Your task to perform on an android device: visit the assistant section in the google photos Image 0: 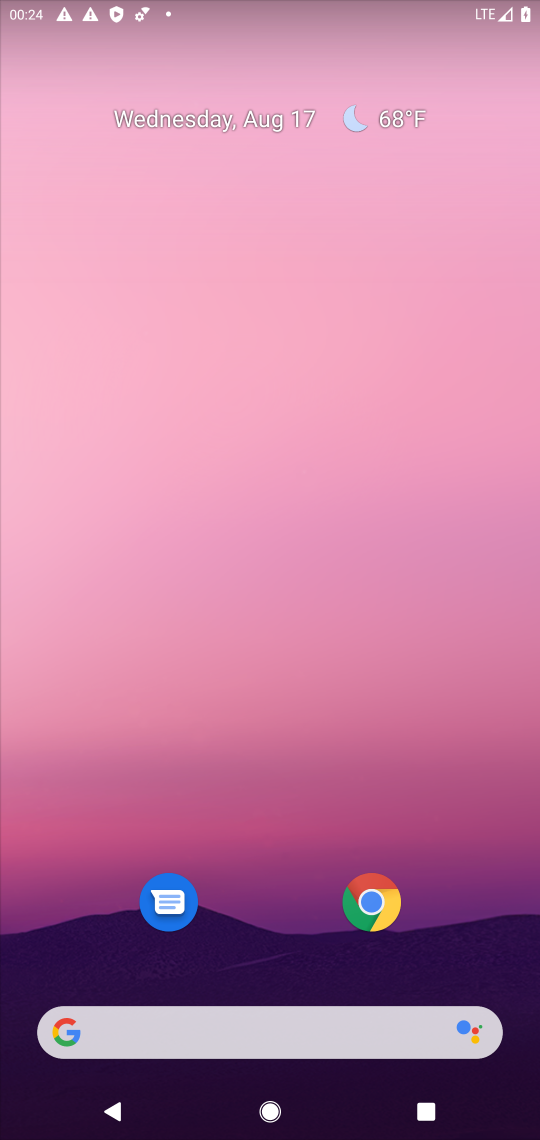
Step 0: drag from (273, 923) to (364, 326)
Your task to perform on an android device: visit the assistant section in the google photos Image 1: 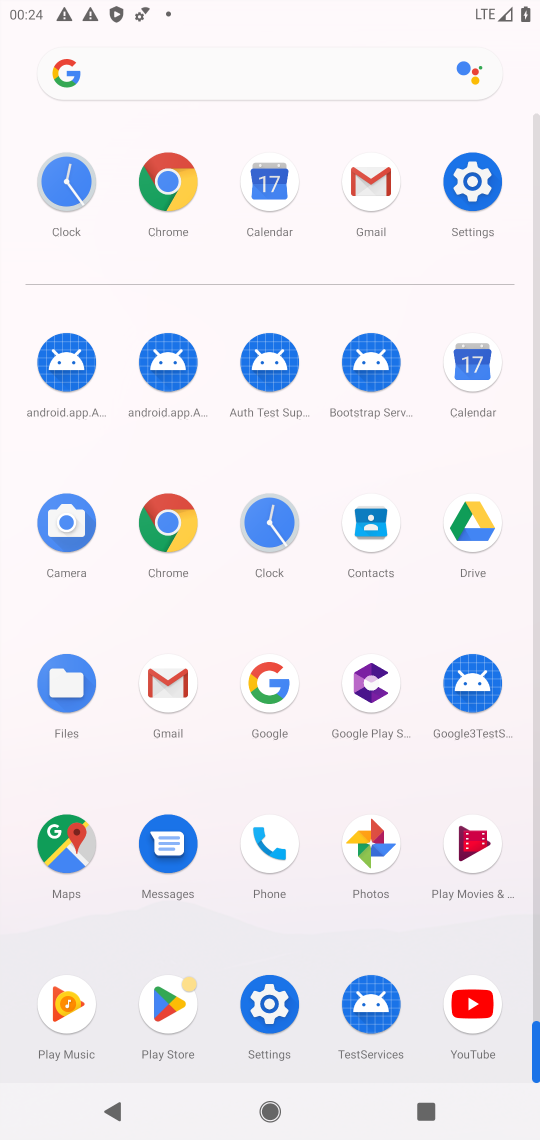
Step 1: click (376, 857)
Your task to perform on an android device: visit the assistant section in the google photos Image 2: 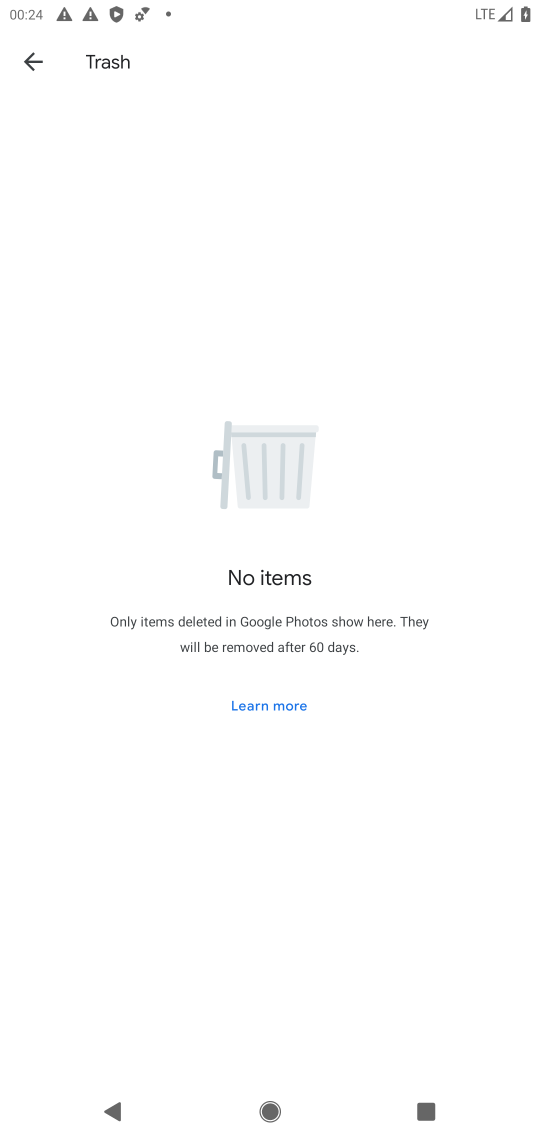
Step 2: click (22, 41)
Your task to perform on an android device: visit the assistant section in the google photos Image 3: 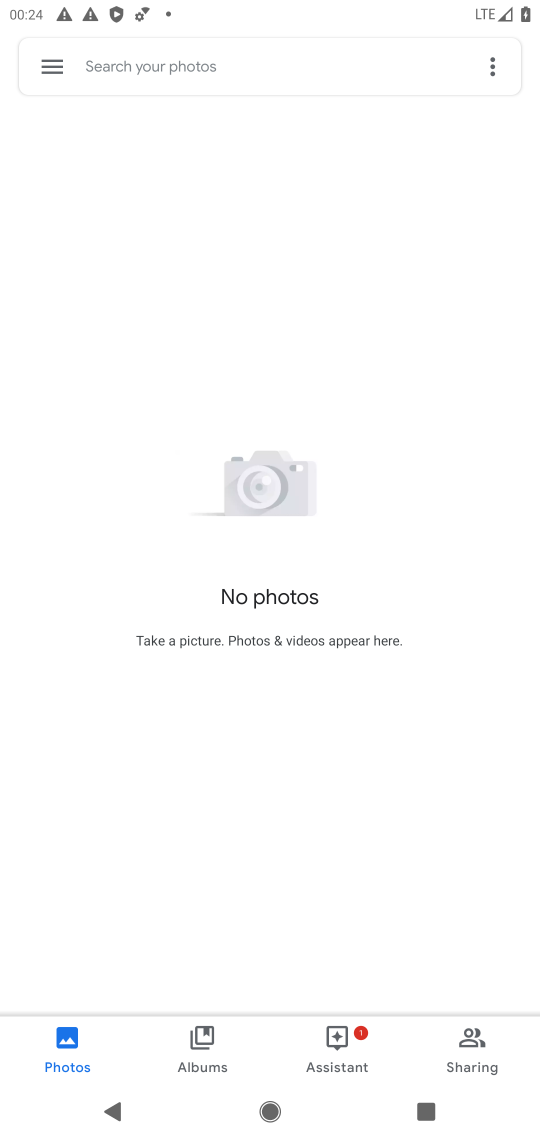
Step 3: click (328, 1028)
Your task to perform on an android device: visit the assistant section in the google photos Image 4: 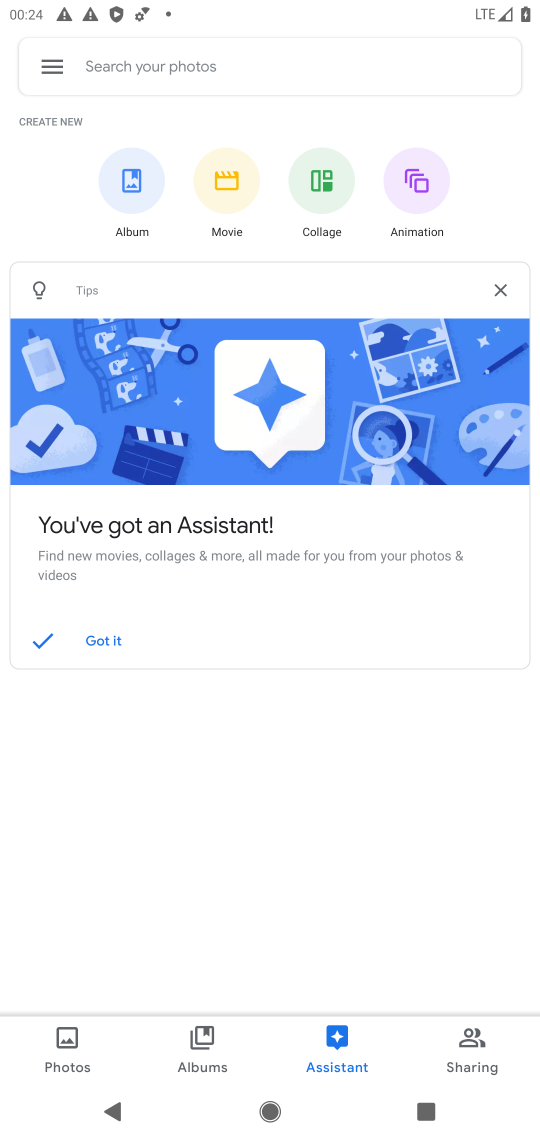
Step 4: task complete